Your task to perform on an android device: turn on wifi Image 0: 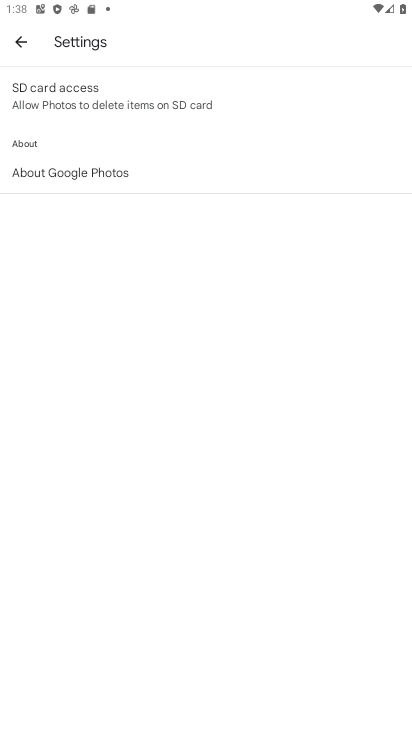
Step 0: drag from (334, 622) to (297, 145)
Your task to perform on an android device: turn on wifi Image 1: 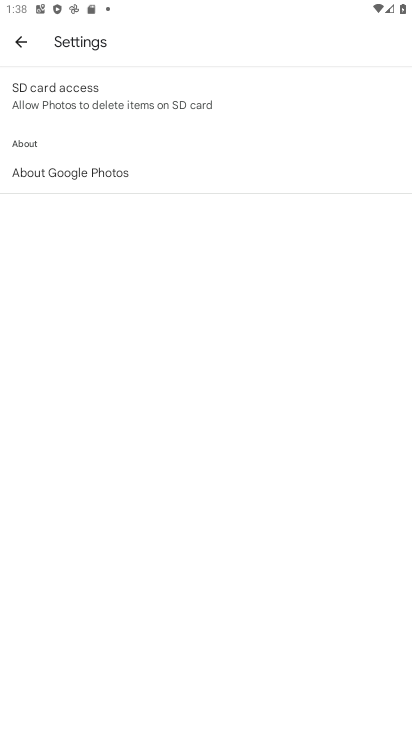
Step 1: press home button
Your task to perform on an android device: turn on wifi Image 2: 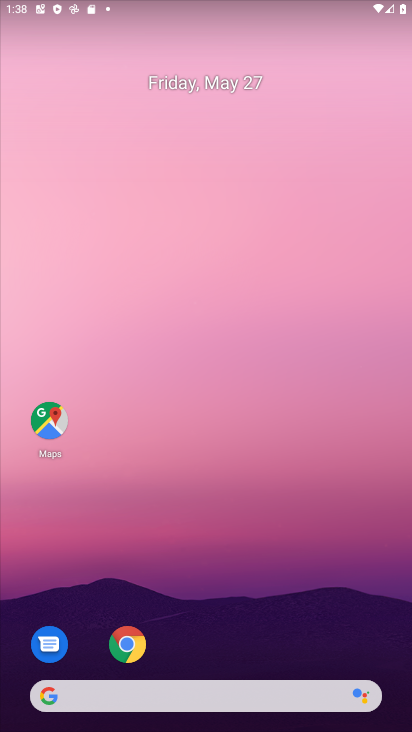
Step 2: drag from (350, 662) to (262, 35)
Your task to perform on an android device: turn on wifi Image 3: 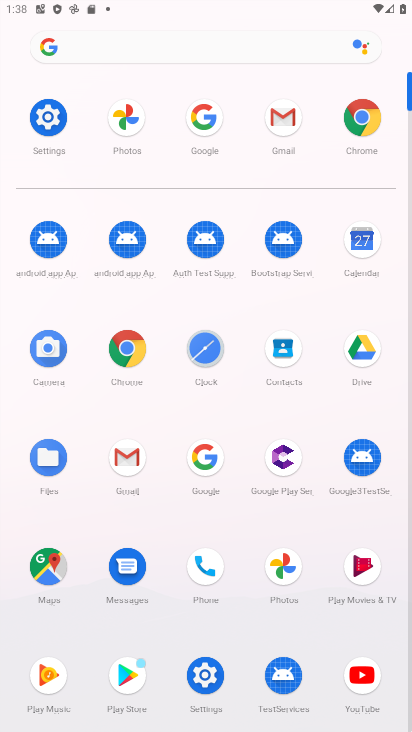
Step 3: click (62, 119)
Your task to perform on an android device: turn on wifi Image 4: 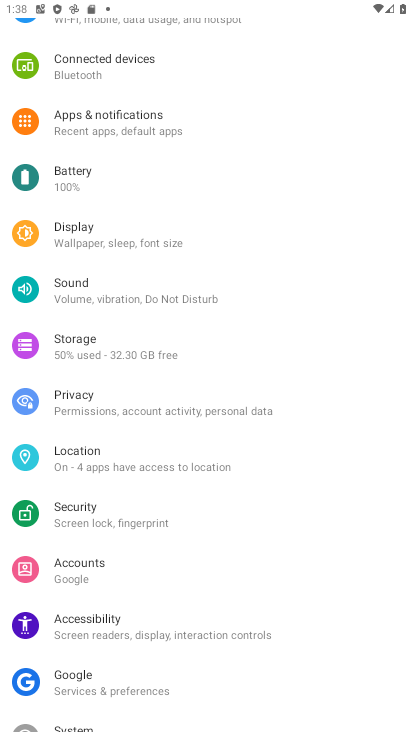
Step 4: drag from (112, 125) to (233, 706)
Your task to perform on an android device: turn on wifi Image 5: 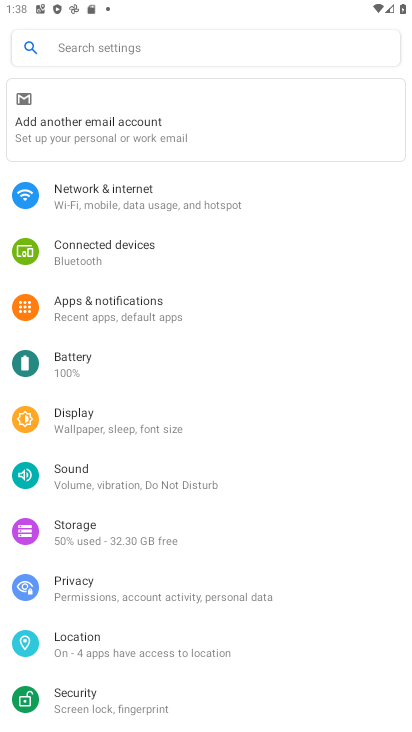
Step 5: click (178, 214)
Your task to perform on an android device: turn on wifi Image 6: 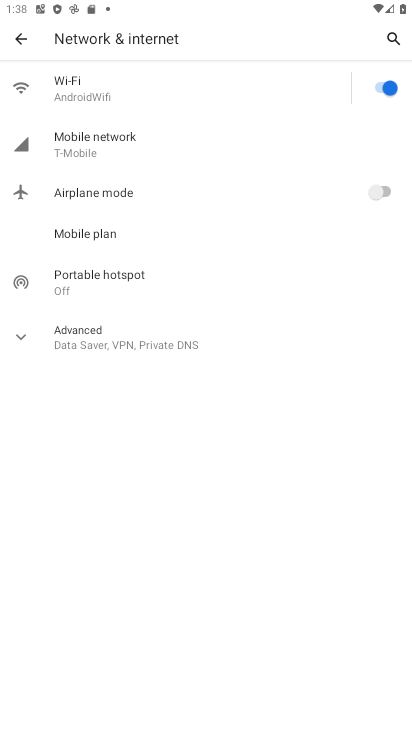
Step 6: click (162, 82)
Your task to perform on an android device: turn on wifi Image 7: 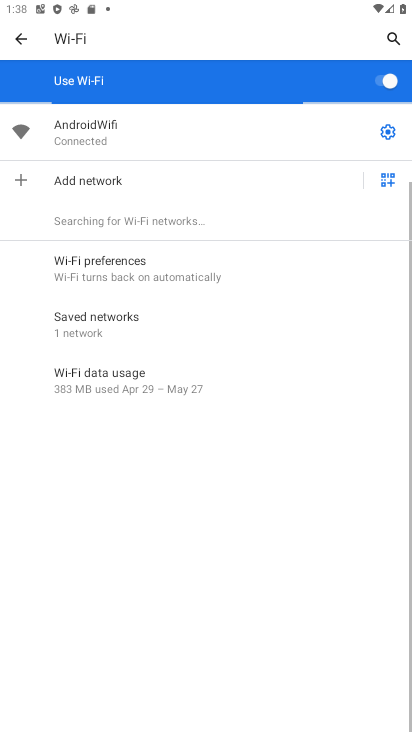
Step 7: task complete